Your task to perform on an android device: change text size in settings app Image 0: 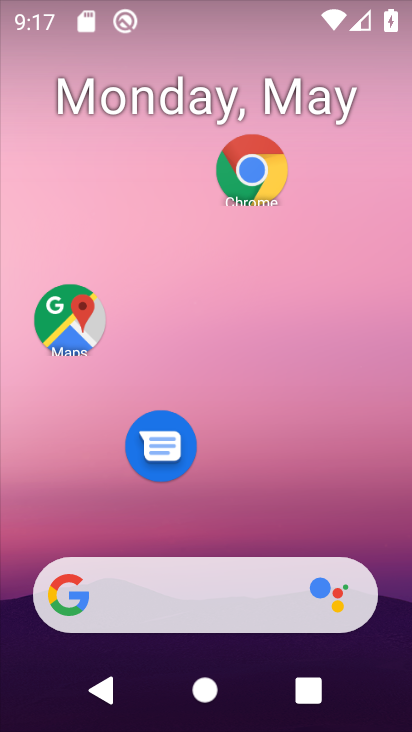
Step 0: press home button
Your task to perform on an android device: change text size in settings app Image 1: 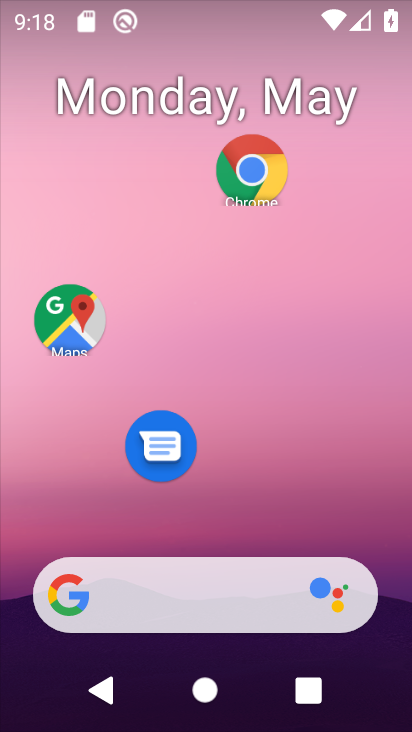
Step 1: drag from (233, 530) to (228, 91)
Your task to perform on an android device: change text size in settings app Image 2: 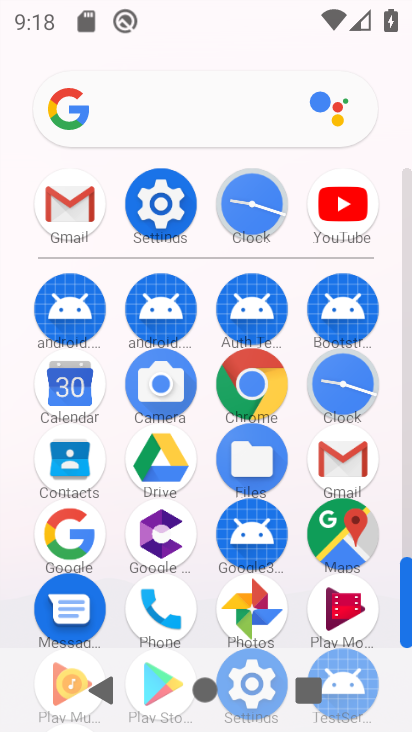
Step 2: click (158, 199)
Your task to perform on an android device: change text size in settings app Image 3: 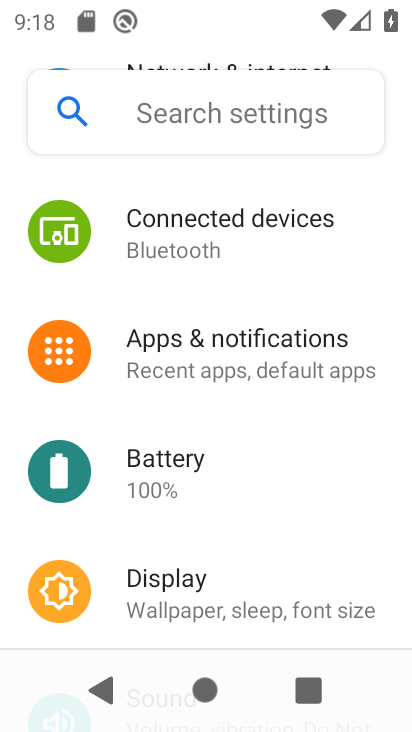
Step 3: click (228, 574)
Your task to perform on an android device: change text size in settings app Image 4: 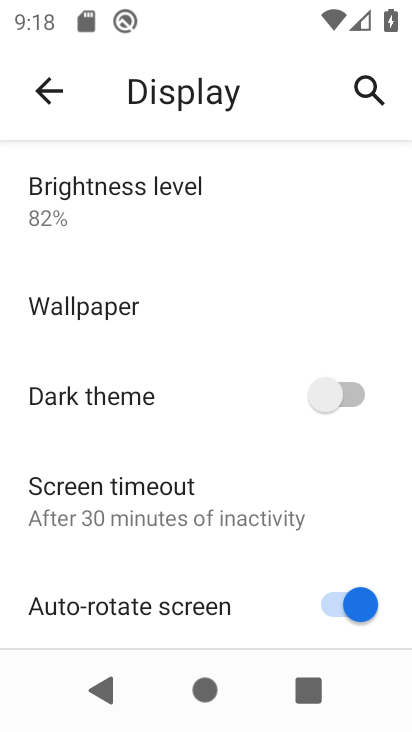
Step 4: click (225, 574)
Your task to perform on an android device: change text size in settings app Image 5: 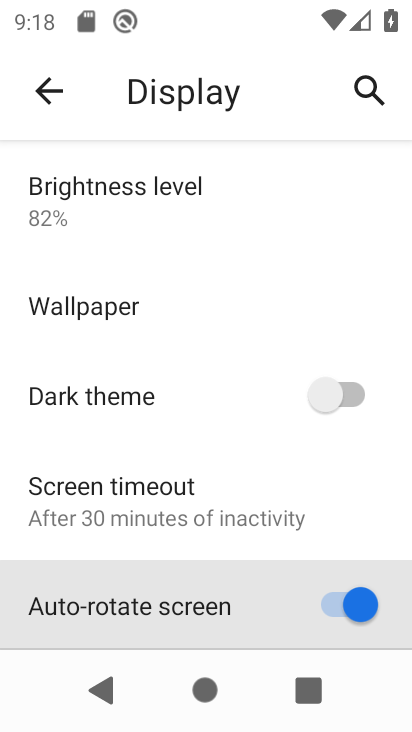
Step 5: drag from (225, 322) to (228, 163)
Your task to perform on an android device: change text size in settings app Image 6: 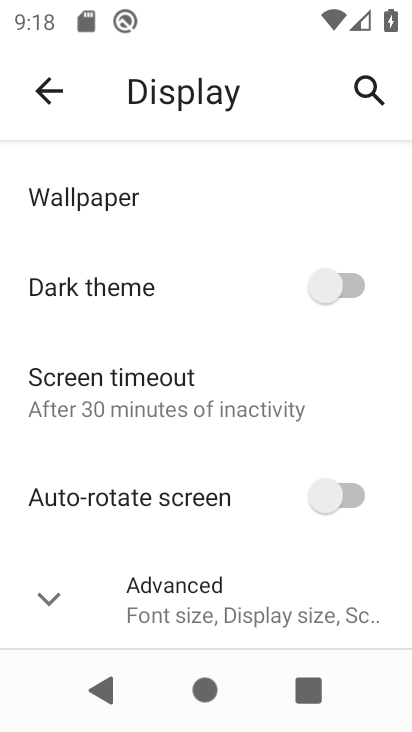
Step 6: click (40, 589)
Your task to perform on an android device: change text size in settings app Image 7: 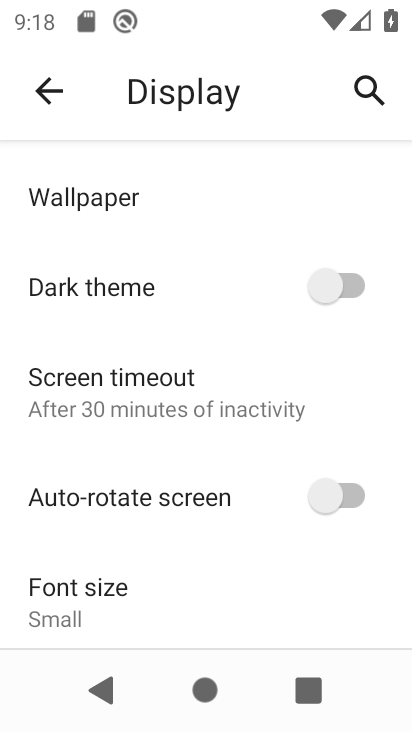
Step 7: click (124, 613)
Your task to perform on an android device: change text size in settings app Image 8: 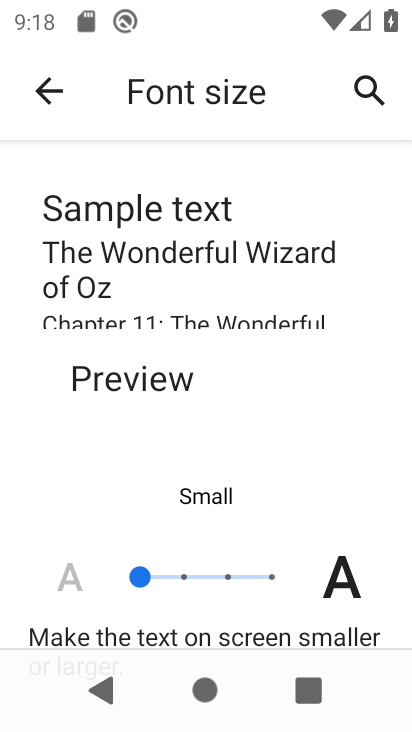
Step 8: click (179, 573)
Your task to perform on an android device: change text size in settings app Image 9: 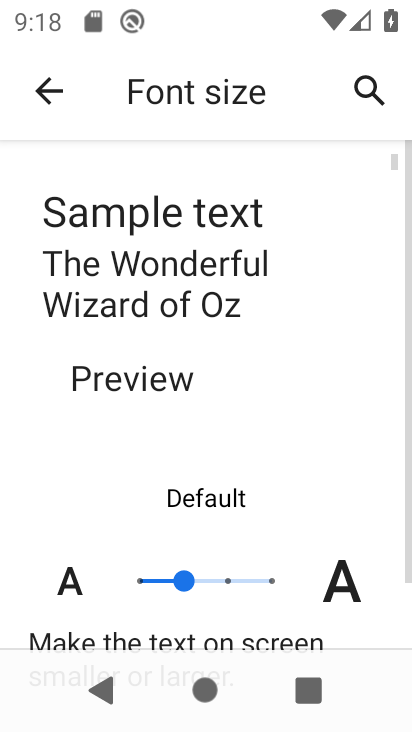
Step 9: task complete